Your task to perform on an android device: toggle pop-ups in chrome Image 0: 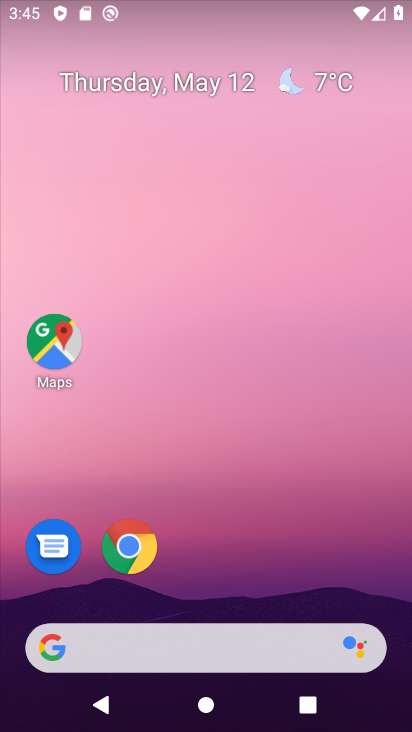
Step 0: click (142, 556)
Your task to perform on an android device: toggle pop-ups in chrome Image 1: 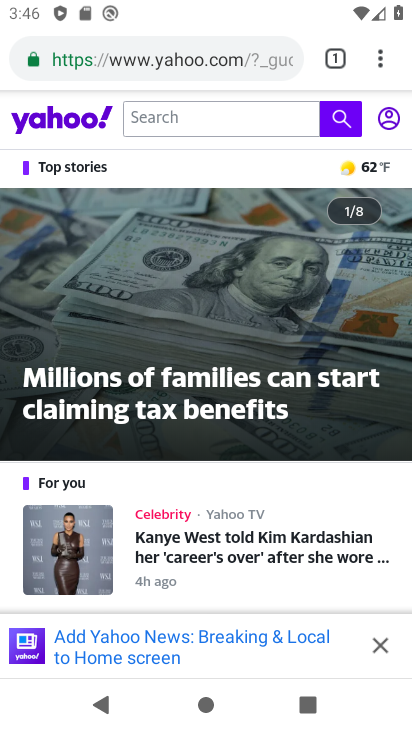
Step 1: drag from (373, 54) to (288, 581)
Your task to perform on an android device: toggle pop-ups in chrome Image 2: 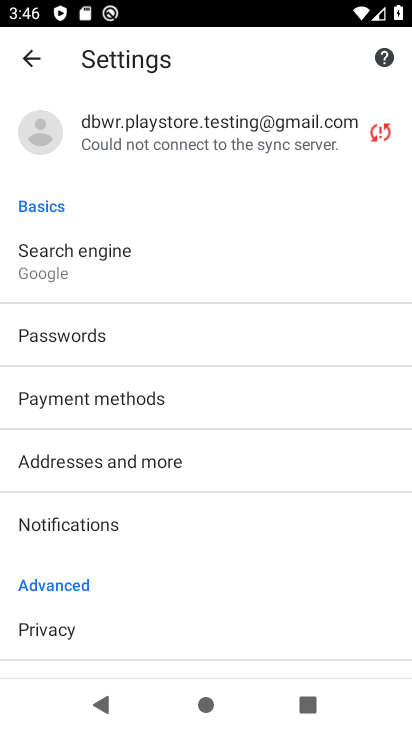
Step 2: drag from (213, 586) to (310, 184)
Your task to perform on an android device: toggle pop-ups in chrome Image 3: 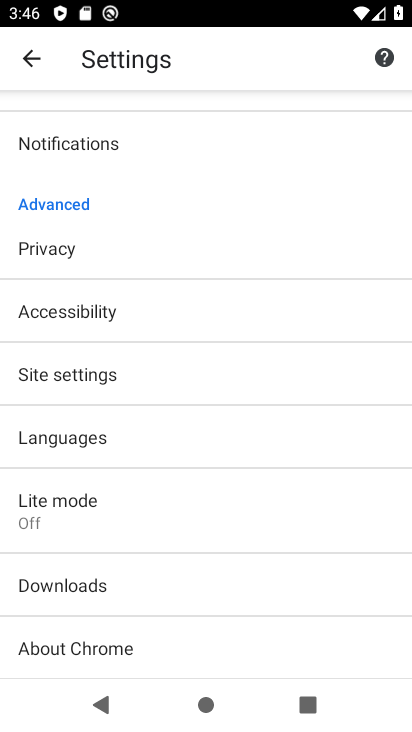
Step 3: click (147, 371)
Your task to perform on an android device: toggle pop-ups in chrome Image 4: 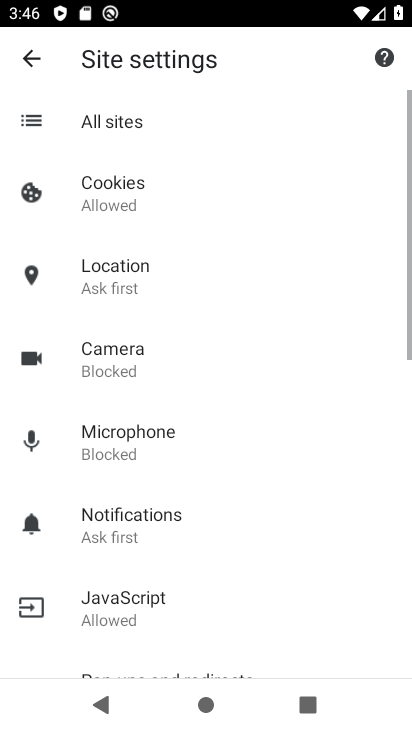
Step 4: drag from (184, 580) to (275, 169)
Your task to perform on an android device: toggle pop-ups in chrome Image 5: 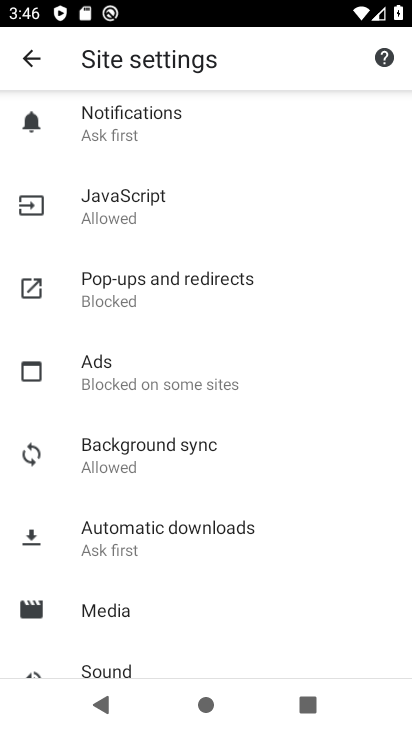
Step 5: click (205, 300)
Your task to perform on an android device: toggle pop-ups in chrome Image 6: 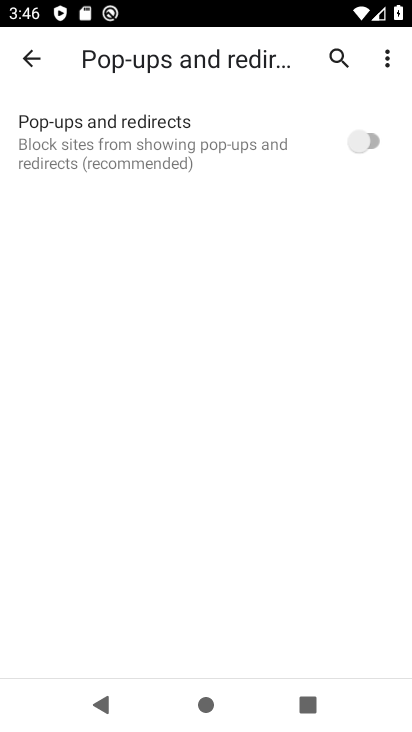
Step 6: click (395, 135)
Your task to perform on an android device: toggle pop-ups in chrome Image 7: 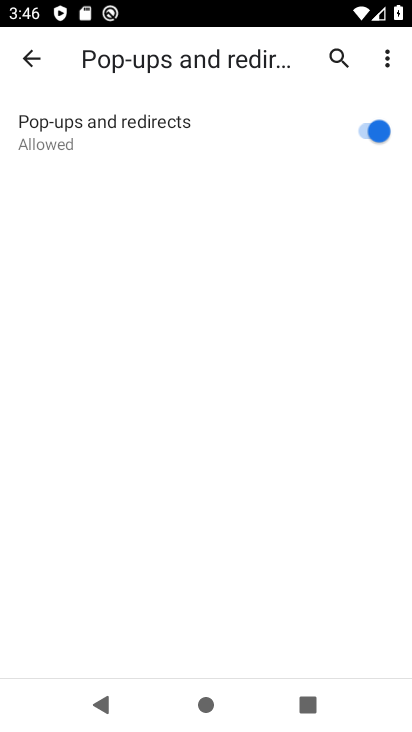
Step 7: task complete